Your task to perform on an android device: delete a single message in the gmail app Image 0: 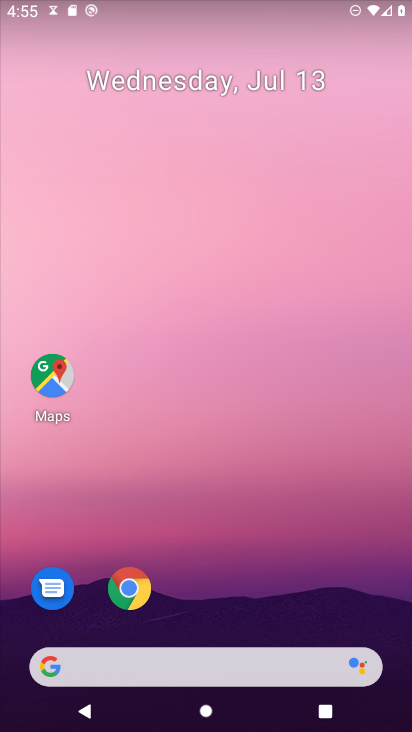
Step 0: drag from (202, 490) to (187, 217)
Your task to perform on an android device: delete a single message in the gmail app Image 1: 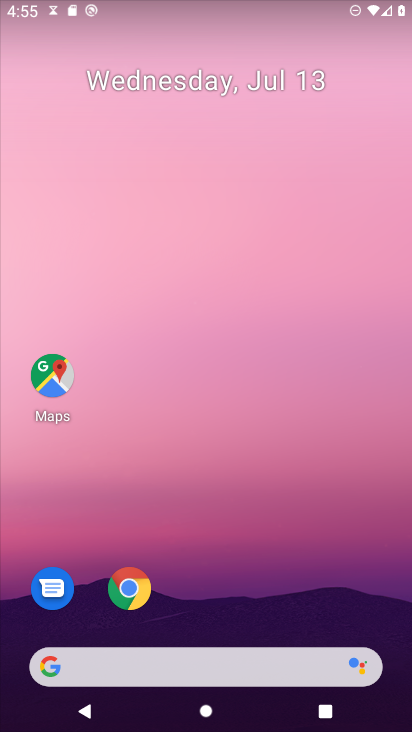
Step 1: drag from (238, 625) to (180, 91)
Your task to perform on an android device: delete a single message in the gmail app Image 2: 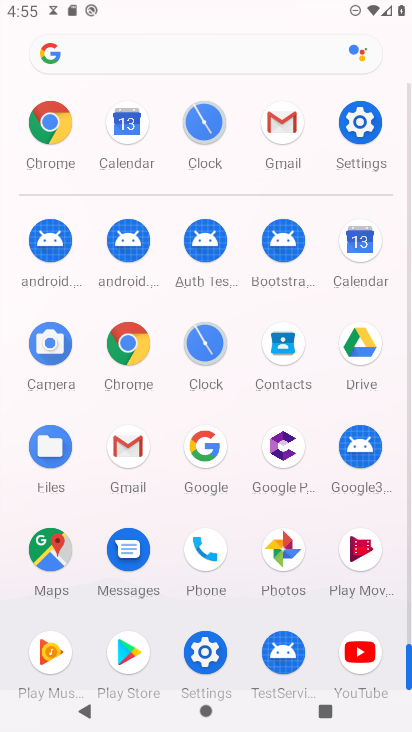
Step 2: drag from (248, 611) to (206, 195)
Your task to perform on an android device: delete a single message in the gmail app Image 3: 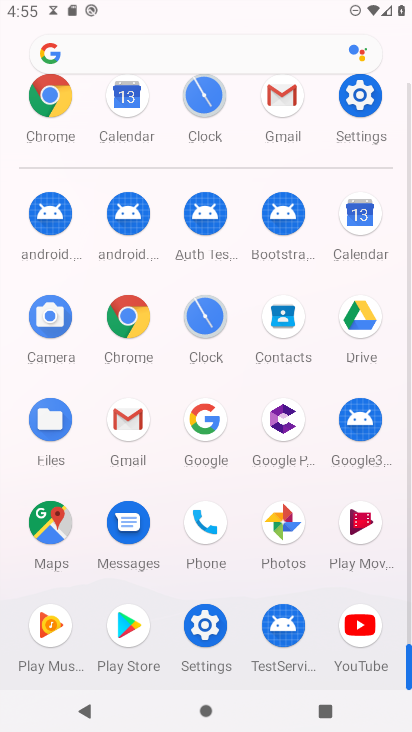
Step 3: click (131, 428)
Your task to perform on an android device: delete a single message in the gmail app Image 4: 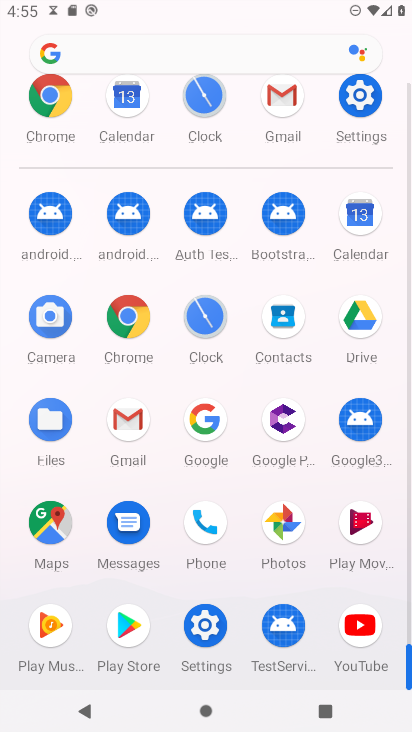
Step 4: click (131, 428)
Your task to perform on an android device: delete a single message in the gmail app Image 5: 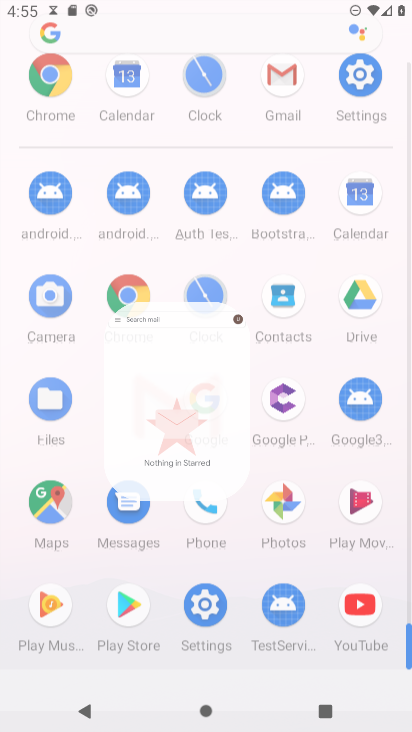
Step 5: click (131, 428)
Your task to perform on an android device: delete a single message in the gmail app Image 6: 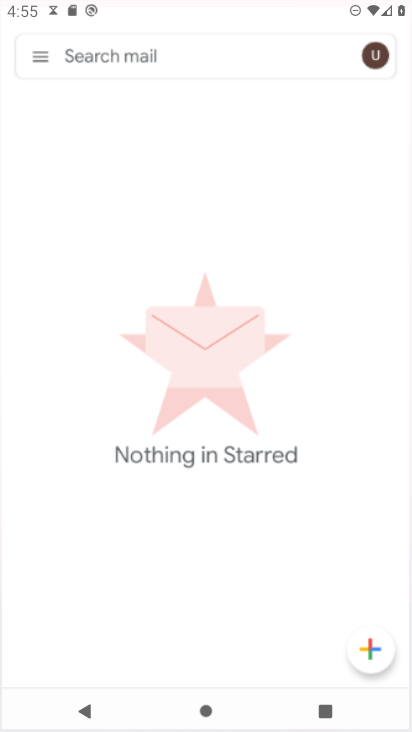
Step 6: click (131, 428)
Your task to perform on an android device: delete a single message in the gmail app Image 7: 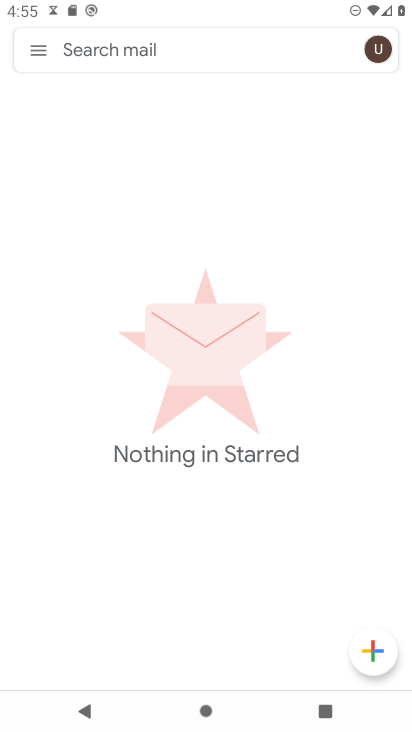
Step 7: click (128, 425)
Your task to perform on an android device: delete a single message in the gmail app Image 8: 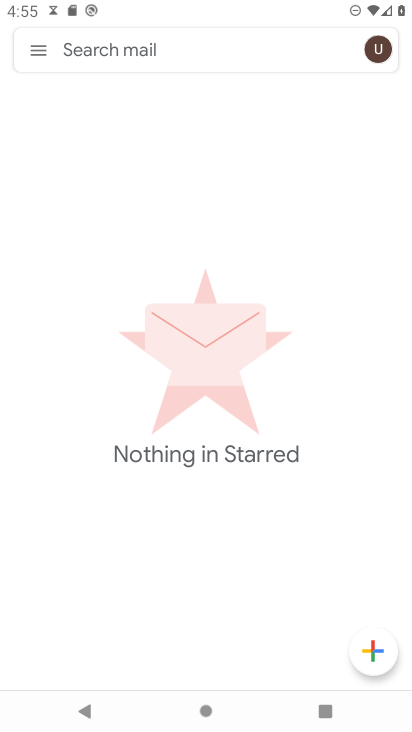
Step 8: click (35, 51)
Your task to perform on an android device: delete a single message in the gmail app Image 9: 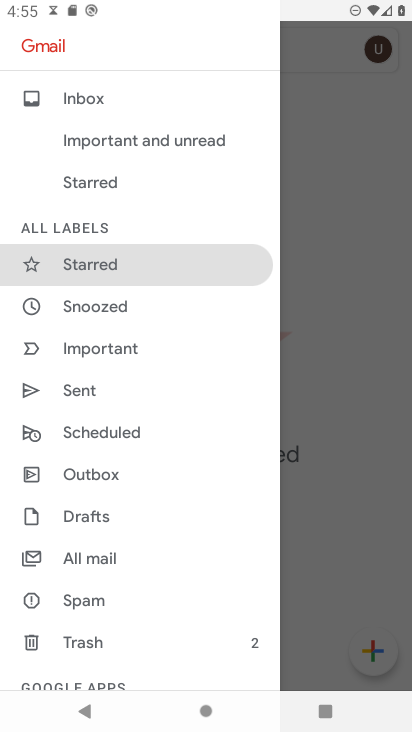
Step 9: click (84, 552)
Your task to perform on an android device: delete a single message in the gmail app Image 10: 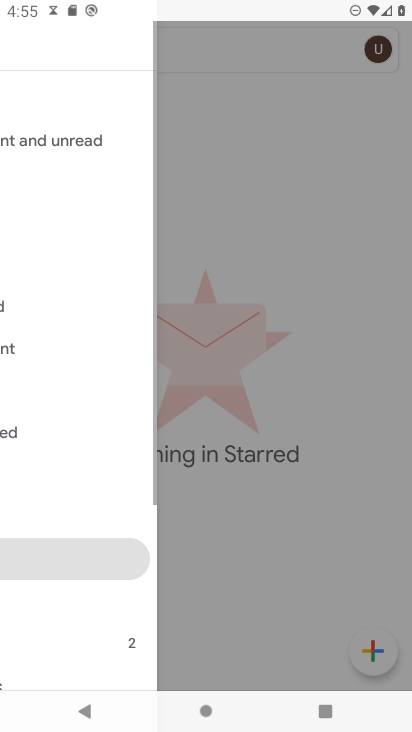
Step 10: click (89, 552)
Your task to perform on an android device: delete a single message in the gmail app Image 11: 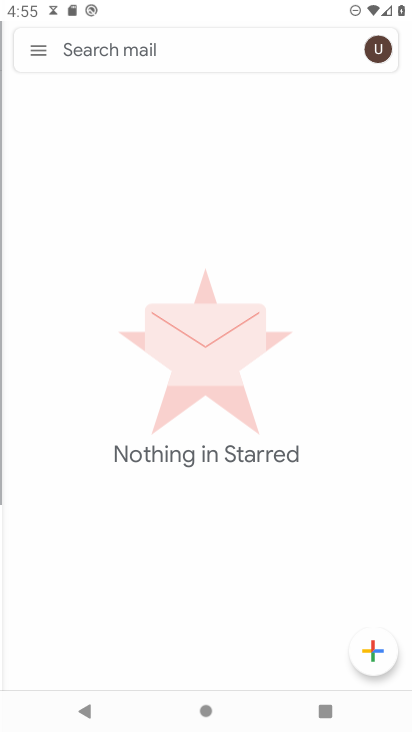
Step 11: click (92, 554)
Your task to perform on an android device: delete a single message in the gmail app Image 12: 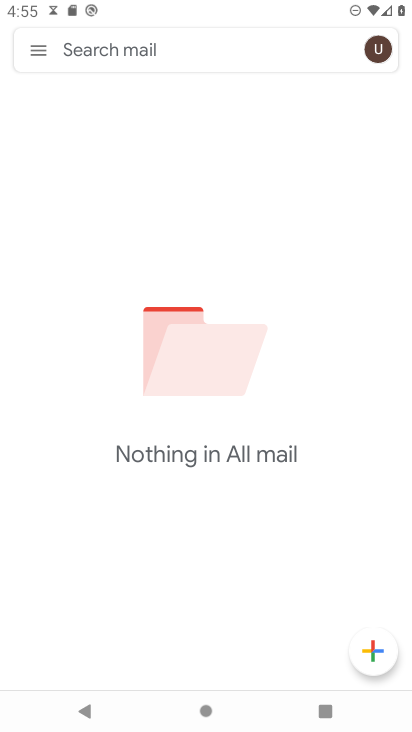
Step 12: task complete